Your task to perform on an android device: toggle improve location accuracy Image 0: 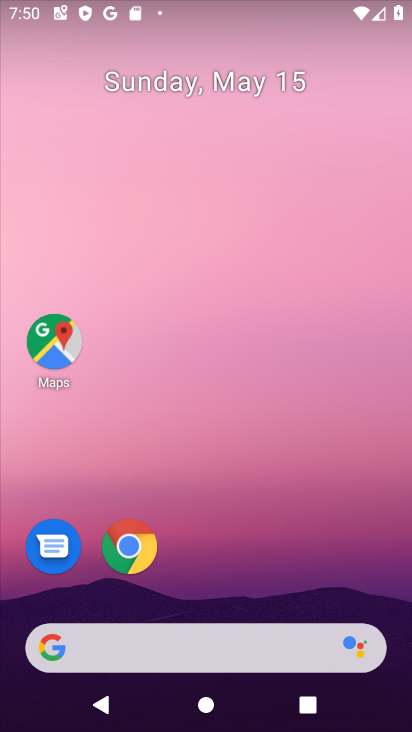
Step 0: drag from (282, 543) to (246, 0)
Your task to perform on an android device: toggle improve location accuracy Image 1: 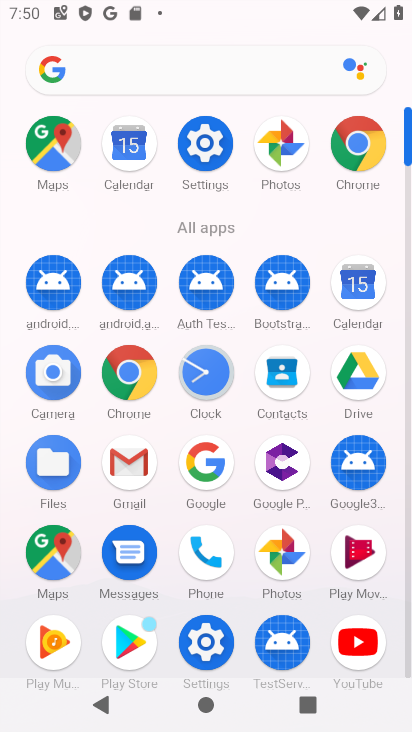
Step 1: click (199, 191)
Your task to perform on an android device: toggle improve location accuracy Image 2: 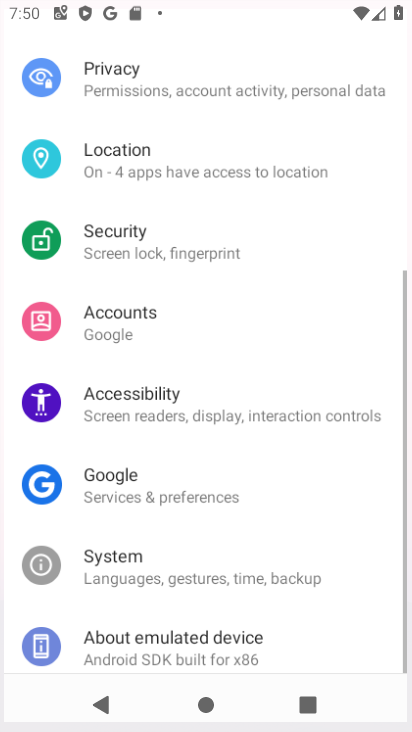
Step 2: click (195, 152)
Your task to perform on an android device: toggle improve location accuracy Image 3: 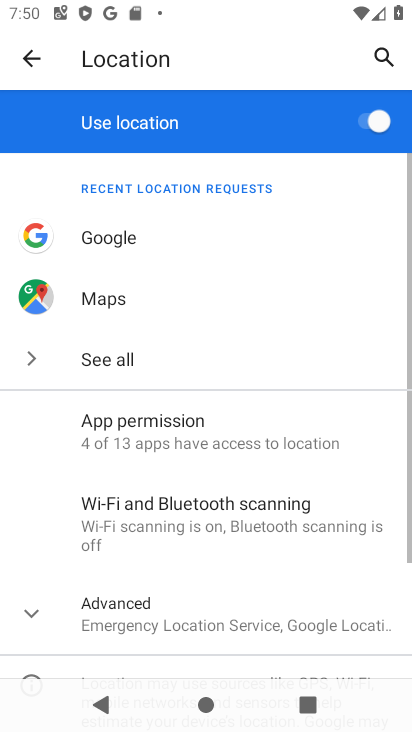
Step 3: click (31, 615)
Your task to perform on an android device: toggle improve location accuracy Image 4: 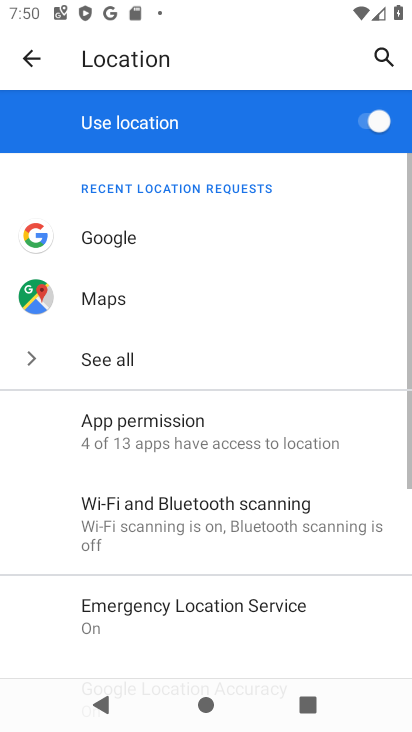
Step 4: drag from (216, 481) to (219, 207)
Your task to perform on an android device: toggle improve location accuracy Image 5: 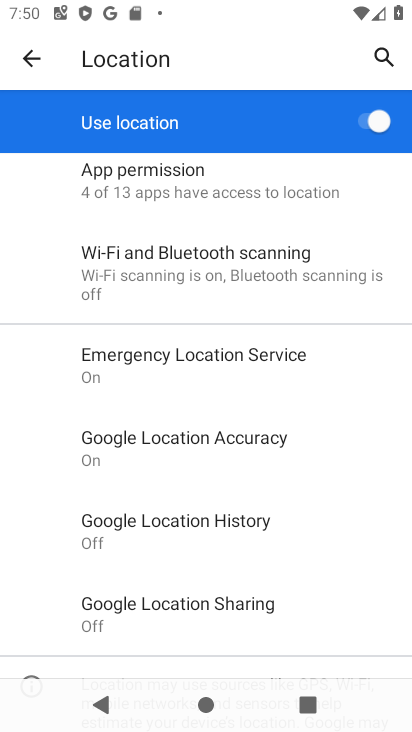
Step 5: click (185, 447)
Your task to perform on an android device: toggle improve location accuracy Image 6: 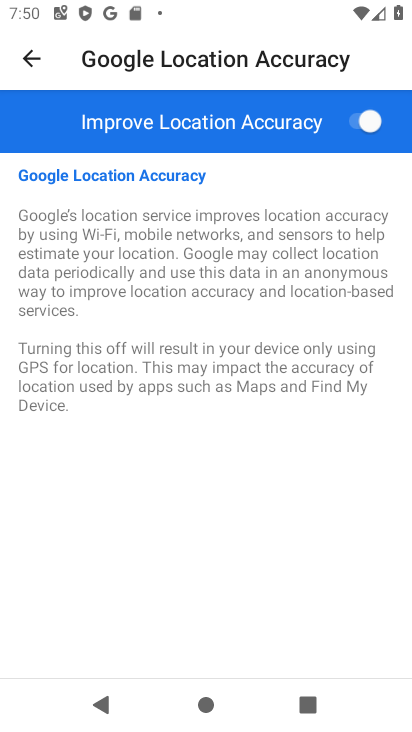
Step 6: click (363, 124)
Your task to perform on an android device: toggle improve location accuracy Image 7: 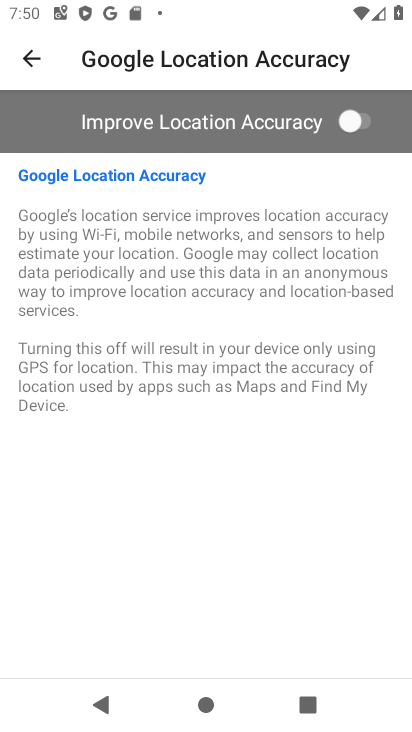
Step 7: task complete